Your task to perform on an android device: Go to settings Image 0: 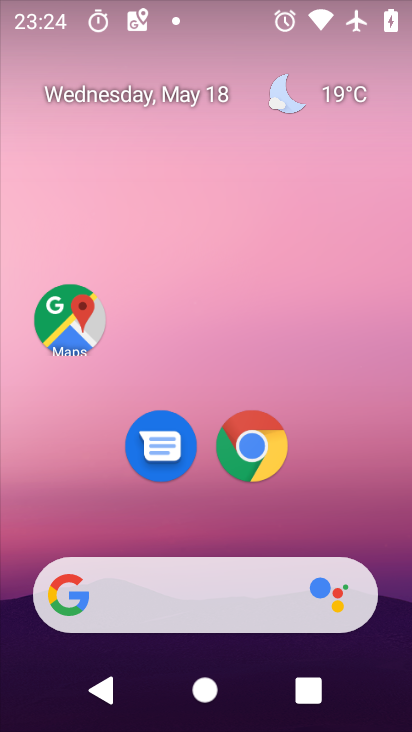
Step 0: press home button
Your task to perform on an android device: Go to settings Image 1: 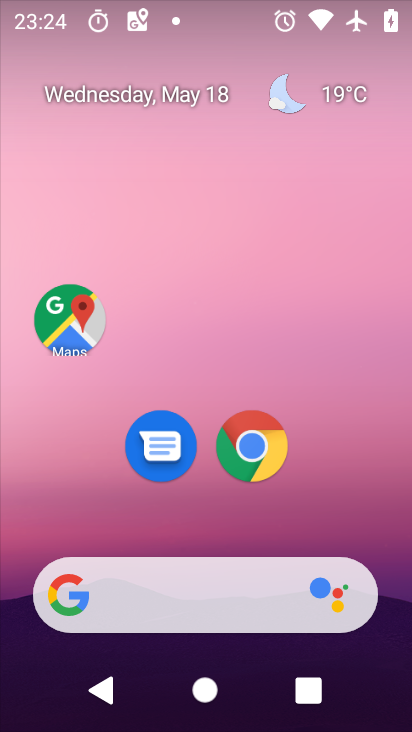
Step 1: drag from (207, 597) to (299, 40)
Your task to perform on an android device: Go to settings Image 2: 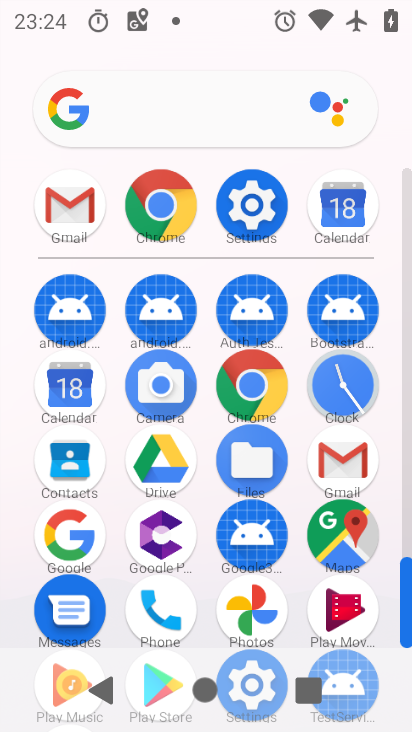
Step 2: click (240, 208)
Your task to perform on an android device: Go to settings Image 3: 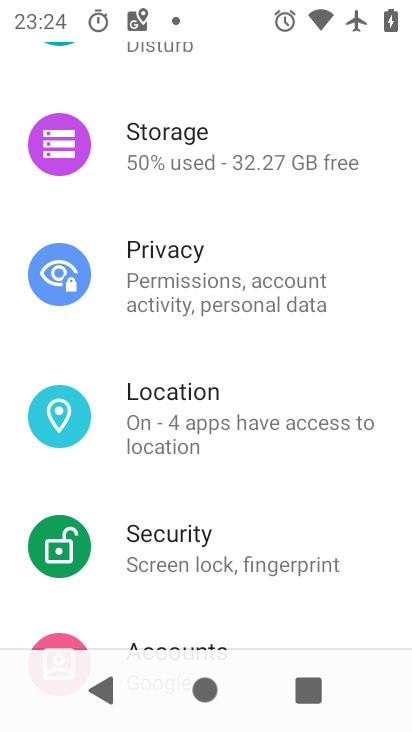
Step 3: task complete